Your task to perform on an android device: Go to eBay Image 0: 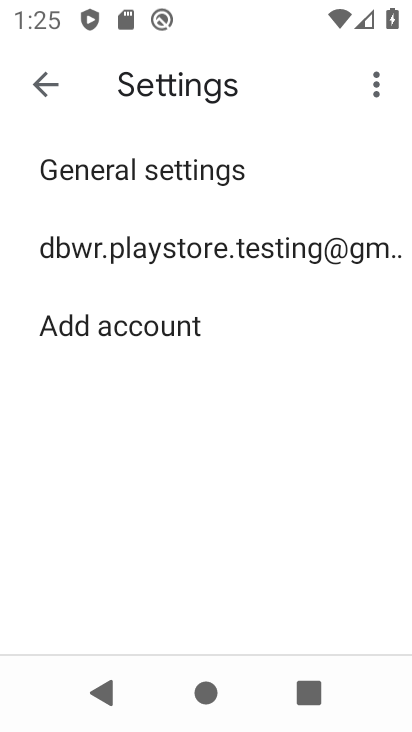
Step 0: press home button
Your task to perform on an android device: Go to eBay Image 1: 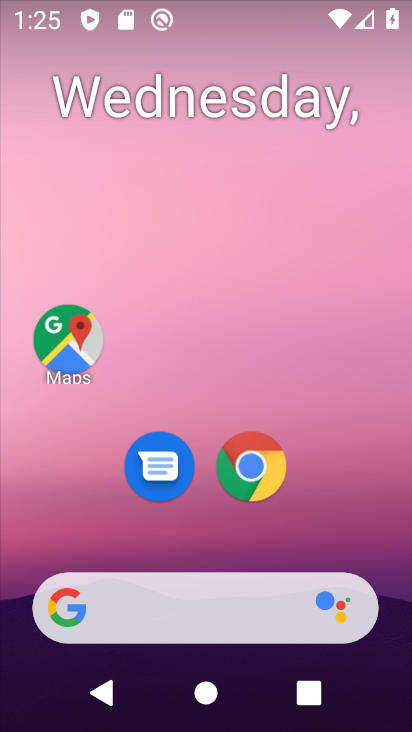
Step 1: click (280, 467)
Your task to perform on an android device: Go to eBay Image 2: 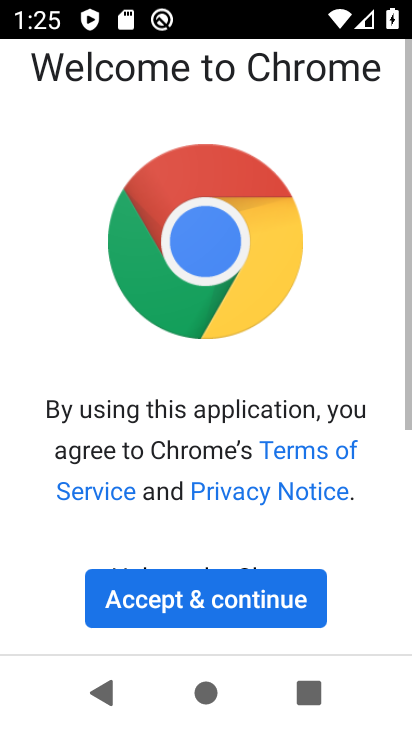
Step 2: click (270, 595)
Your task to perform on an android device: Go to eBay Image 3: 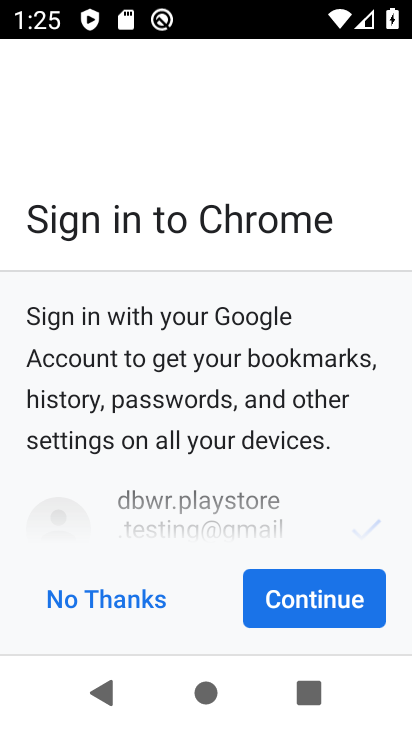
Step 3: click (270, 595)
Your task to perform on an android device: Go to eBay Image 4: 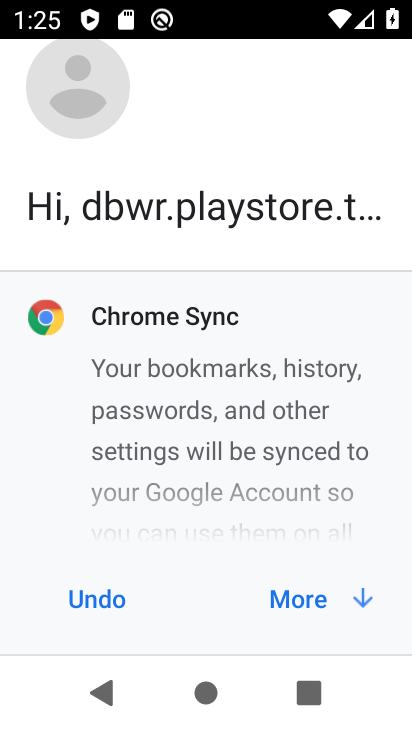
Step 4: click (270, 595)
Your task to perform on an android device: Go to eBay Image 5: 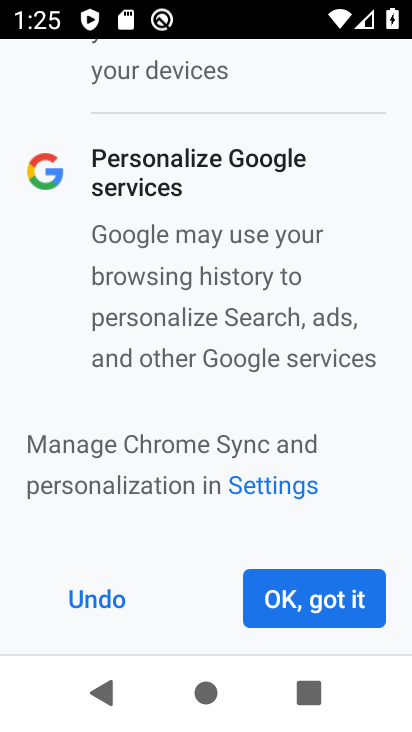
Step 5: click (284, 567)
Your task to perform on an android device: Go to eBay Image 6: 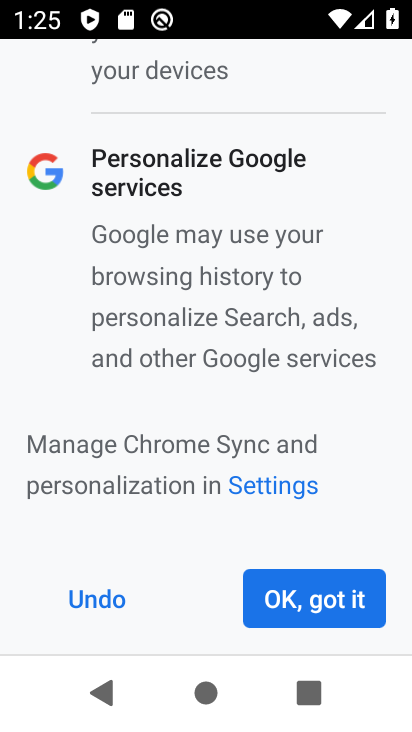
Step 6: click (296, 585)
Your task to perform on an android device: Go to eBay Image 7: 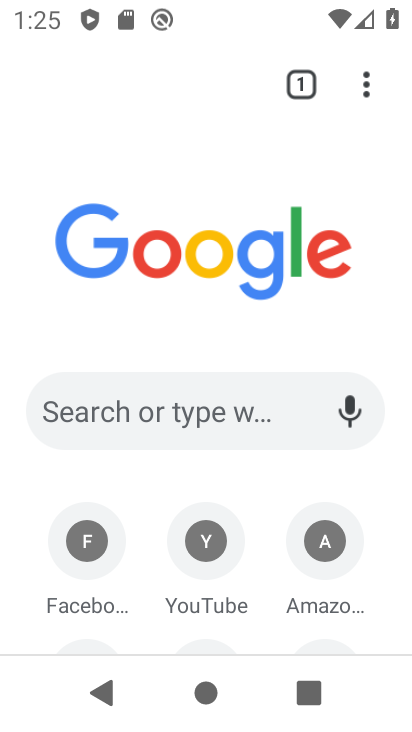
Step 7: drag from (302, 635) to (326, 392)
Your task to perform on an android device: Go to eBay Image 8: 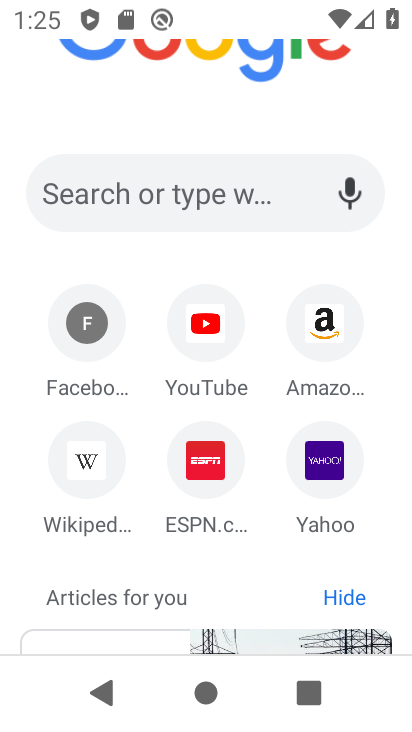
Step 8: click (147, 199)
Your task to perform on an android device: Go to eBay Image 9: 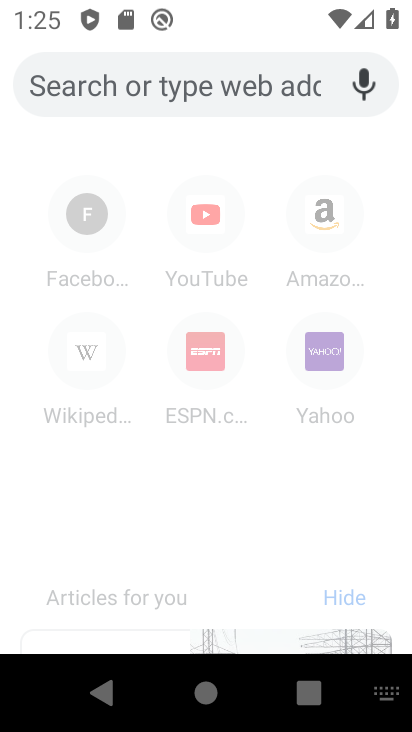
Step 9: type "eBay"
Your task to perform on an android device: Go to eBay Image 10: 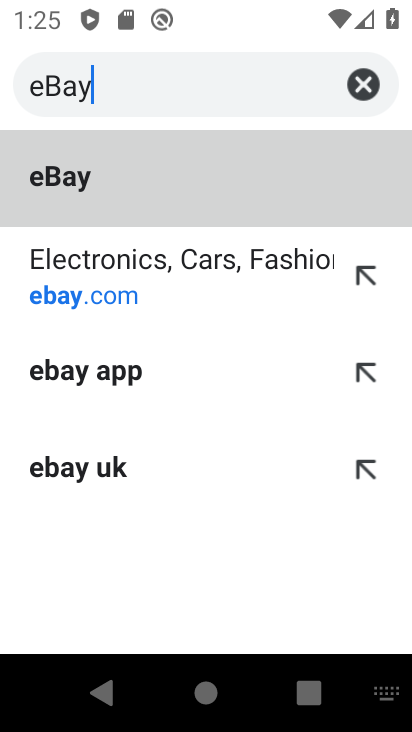
Step 10: click (95, 280)
Your task to perform on an android device: Go to eBay Image 11: 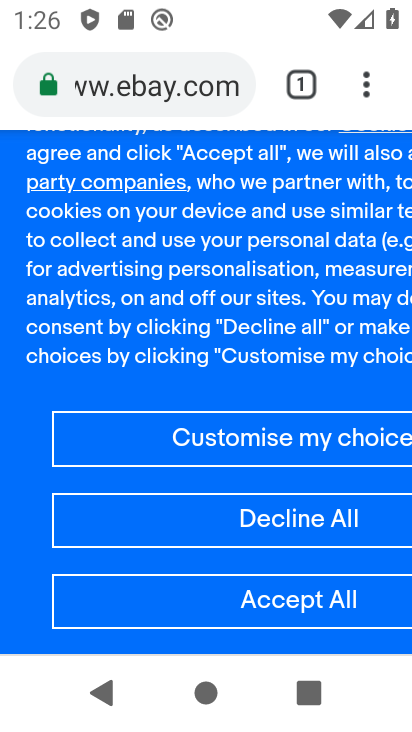
Step 11: click (304, 611)
Your task to perform on an android device: Go to eBay Image 12: 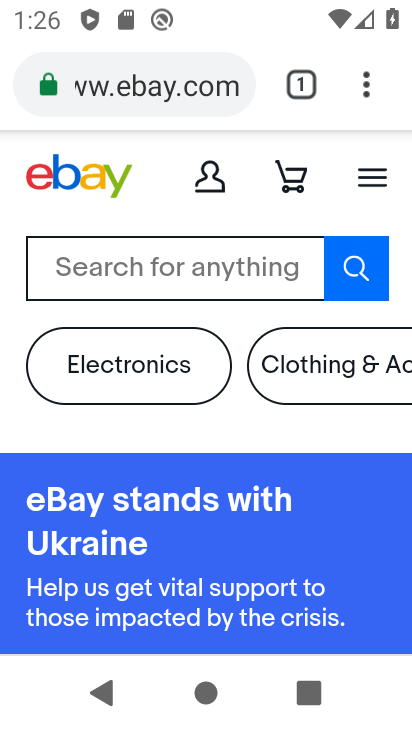
Step 12: task complete